Your task to perform on an android device: see creations saved in the google photos Image 0: 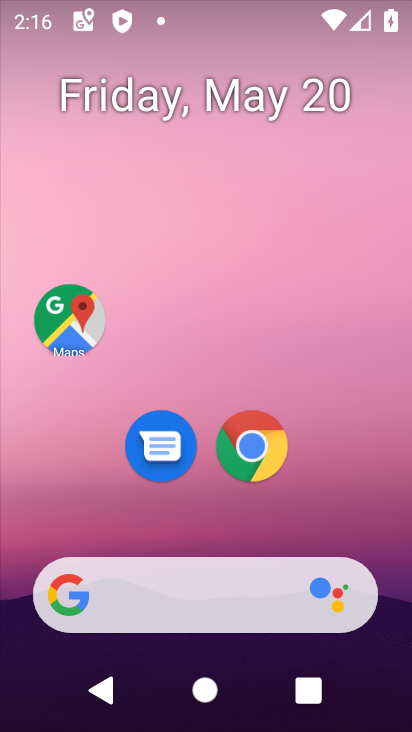
Step 0: drag from (355, 543) to (274, 6)
Your task to perform on an android device: see creations saved in the google photos Image 1: 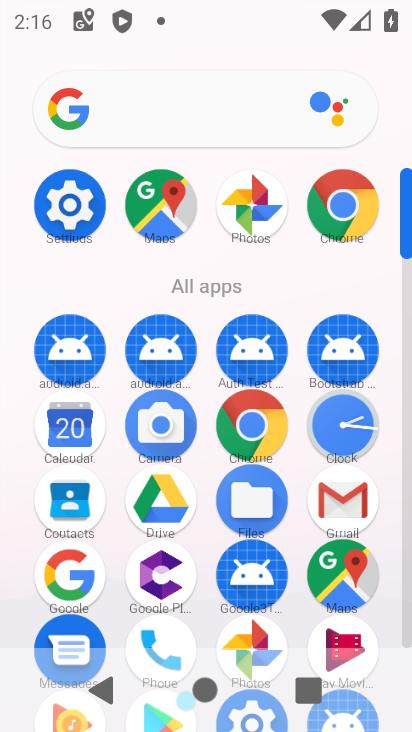
Step 1: click (251, 203)
Your task to perform on an android device: see creations saved in the google photos Image 2: 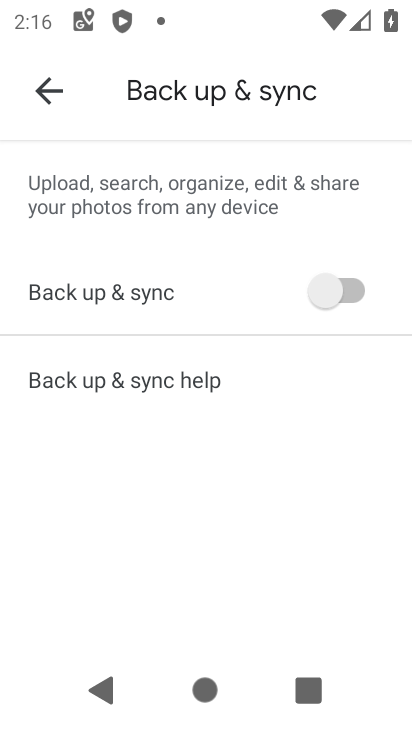
Step 2: click (45, 89)
Your task to perform on an android device: see creations saved in the google photos Image 3: 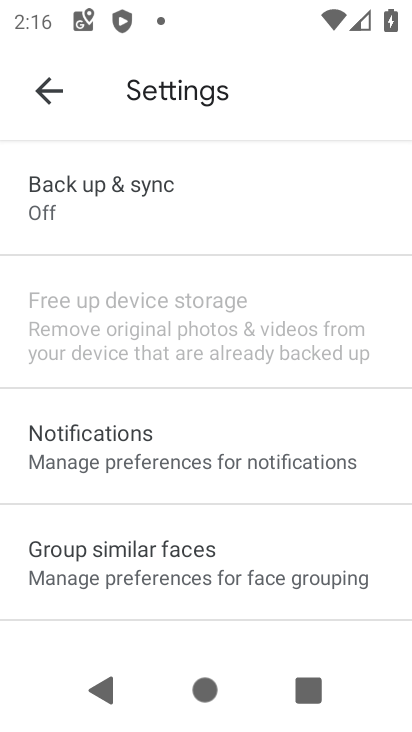
Step 3: click (47, 100)
Your task to perform on an android device: see creations saved in the google photos Image 4: 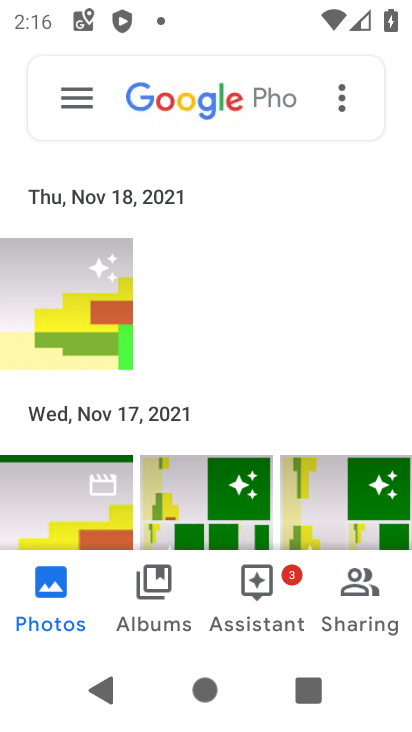
Step 4: click (136, 107)
Your task to perform on an android device: see creations saved in the google photos Image 5: 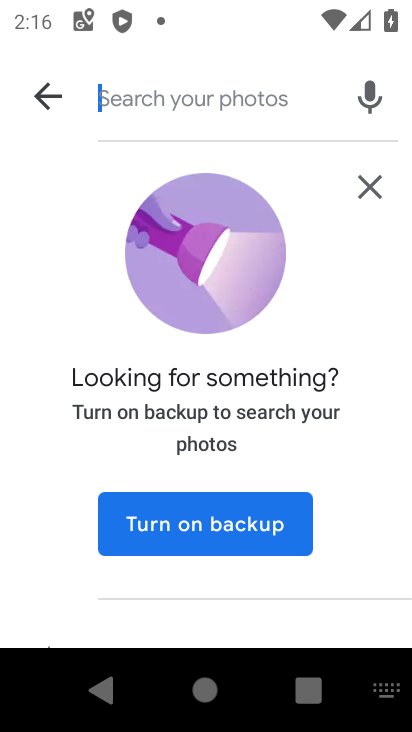
Step 5: click (223, 528)
Your task to perform on an android device: see creations saved in the google photos Image 6: 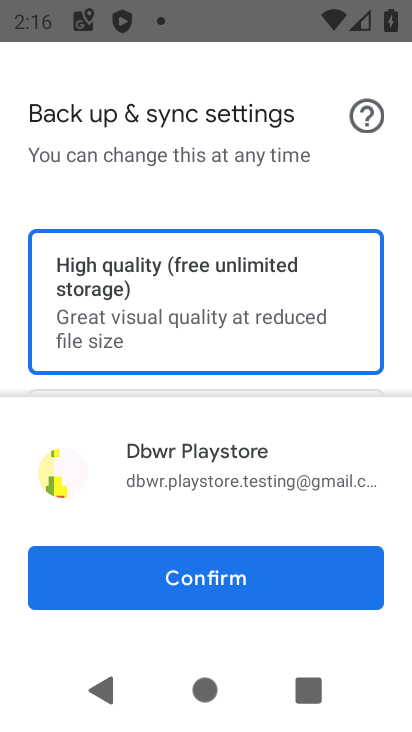
Step 6: click (220, 583)
Your task to perform on an android device: see creations saved in the google photos Image 7: 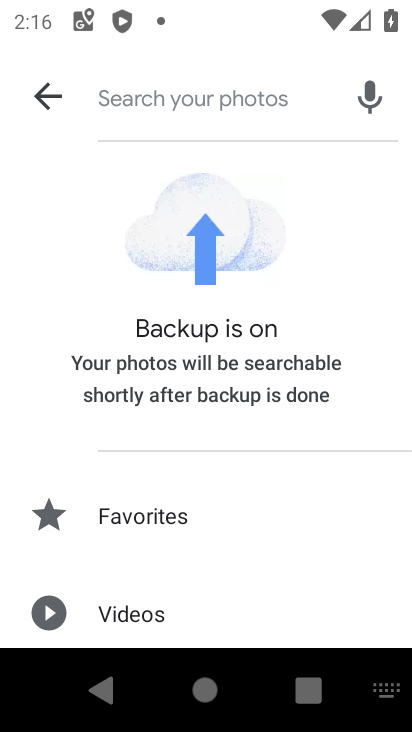
Step 7: click (128, 100)
Your task to perform on an android device: see creations saved in the google photos Image 8: 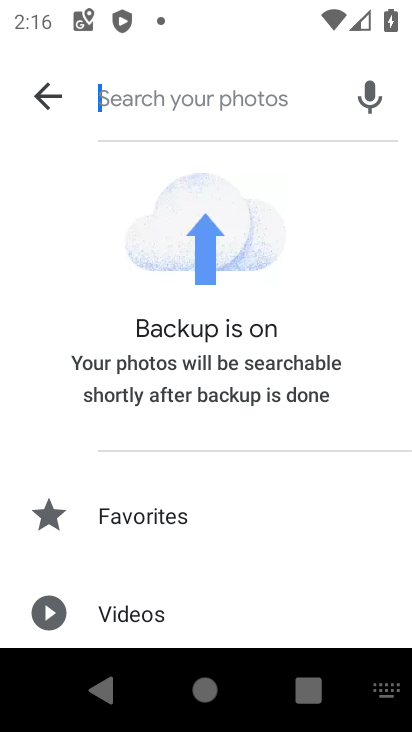
Step 8: drag from (220, 450) to (202, 123)
Your task to perform on an android device: see creations saved in the google photos Image 9: 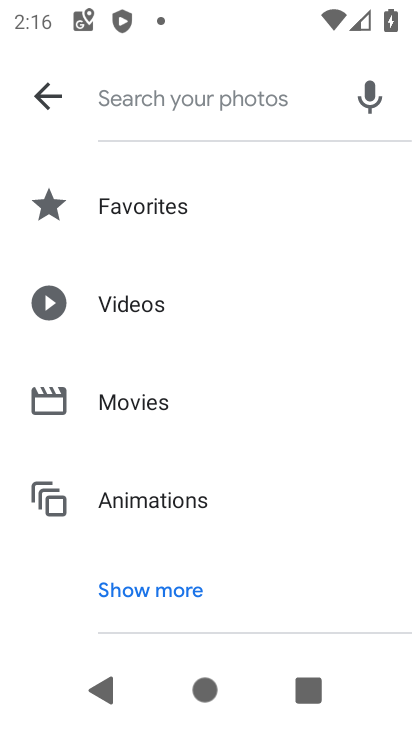
Step 9: click (143, 585)
Your task to perform on an android device: see creations saved in the google photos Image 10: 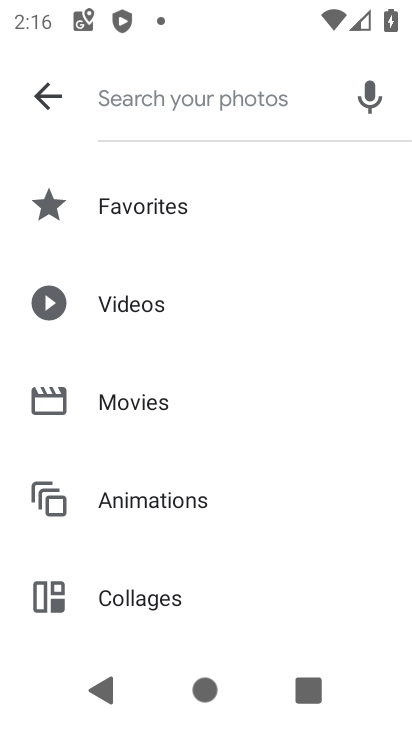
Step 10: drag from (163, 582) to (137, 292)
Your task to perform on an android device: see creations saved in the google photos Image 11: 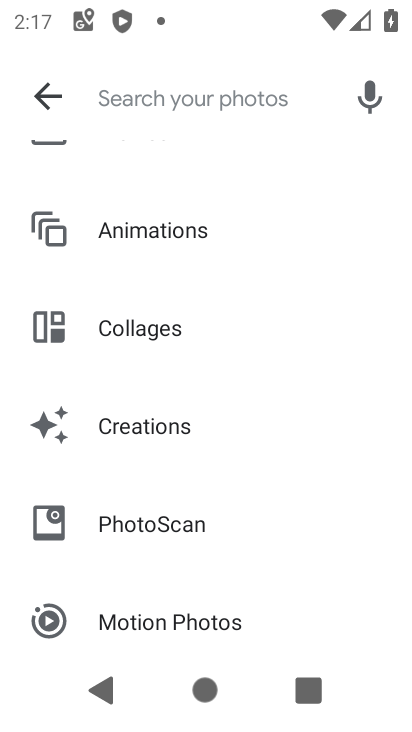
Step 11: click (136, 434)
Your task to perform on an android device: see creations saved in the google photos Image 12: 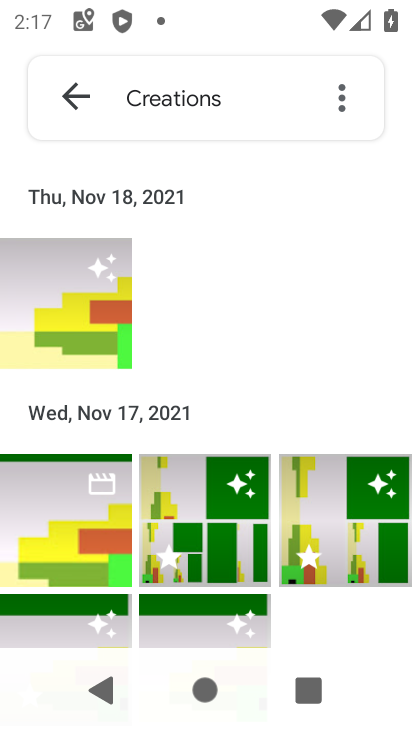
Step 12: task complete